Your task to perform on an android device: Open privacy settings Image 0: 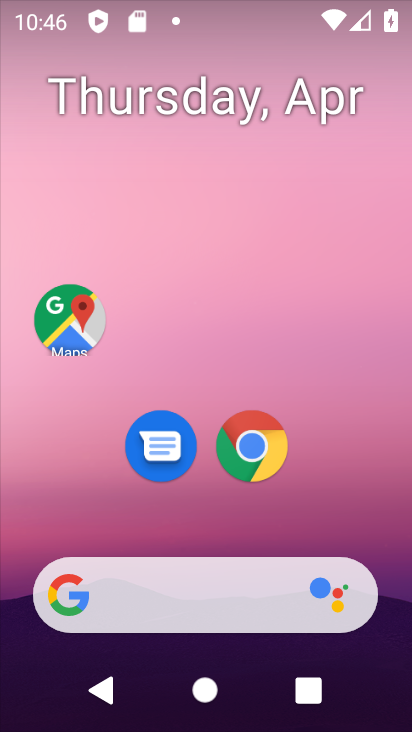
Step 0: drag from (194, 540) to (229, 278)
Your task to perform on an android device: Open privacy settings Image 1: 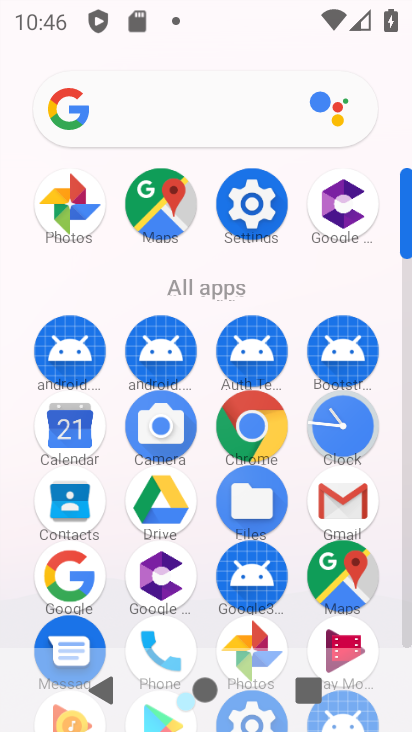
Step 1: click (231, 207)
Your task to perform on an android device: Open privacy settings Image 2: 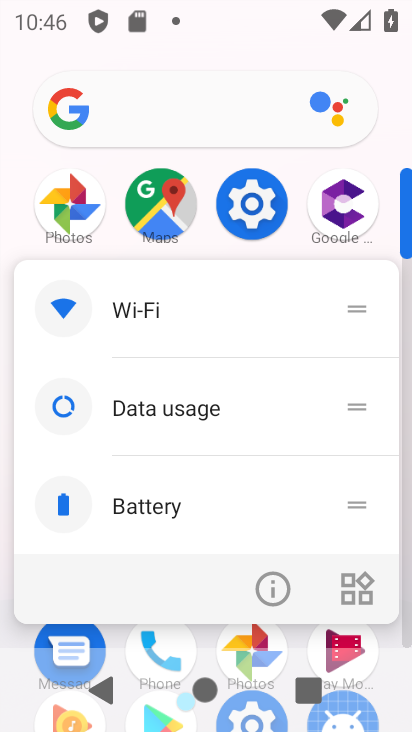
Step 2: click (291, 584)
Your task to perform on an android device: Open privacy settings Image 3: 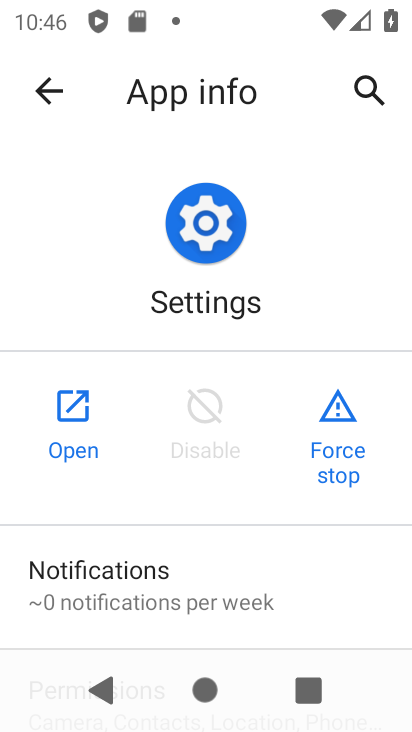
Step 3: click (55, 392)
Your task to perform on an android device: Open privacy settings Image 4: 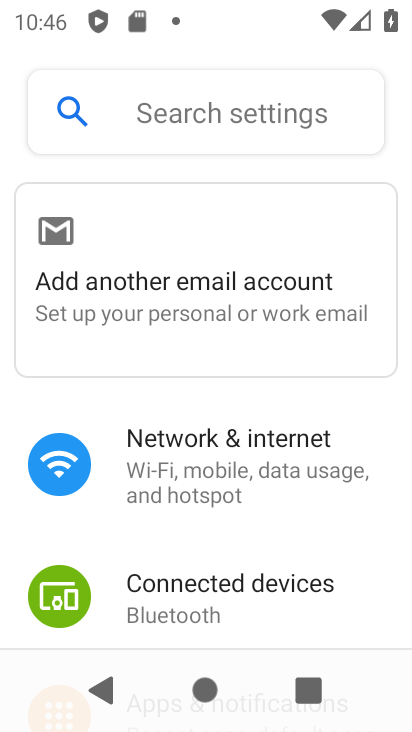
Step 4: drag from (229, 590) to (285, 65)
Your task to perform on an android device: Open privacy settings Image 5: 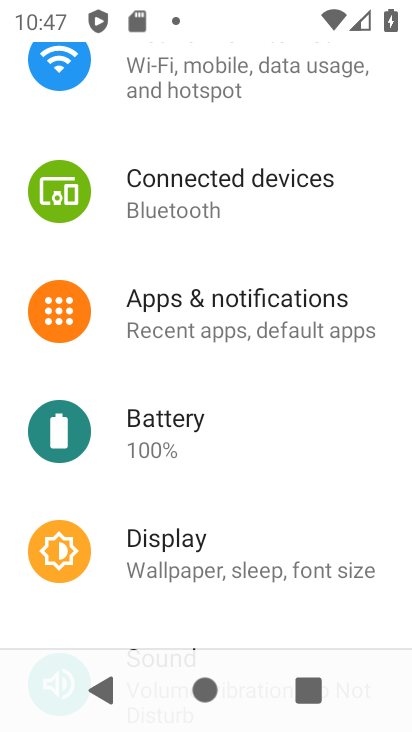
Step 5: drag from (230, 526) to (258, 104)
Your task to perform on an android device: Open privacy settings Image 6: 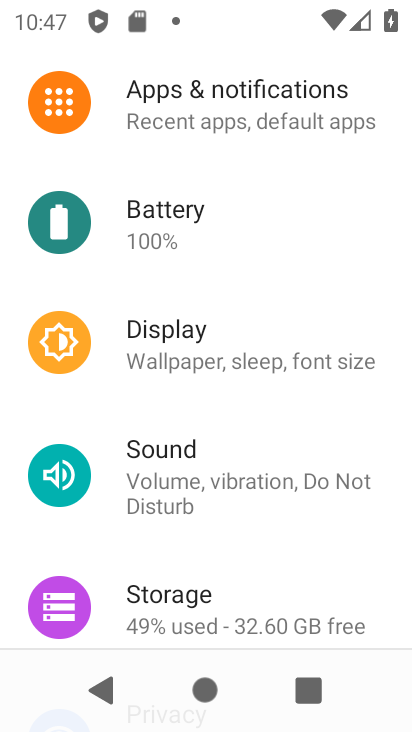
Step 6: drag from (218, 590) to (307, 150)
Your task to perform on an android device: Open privacy settings Image 7: 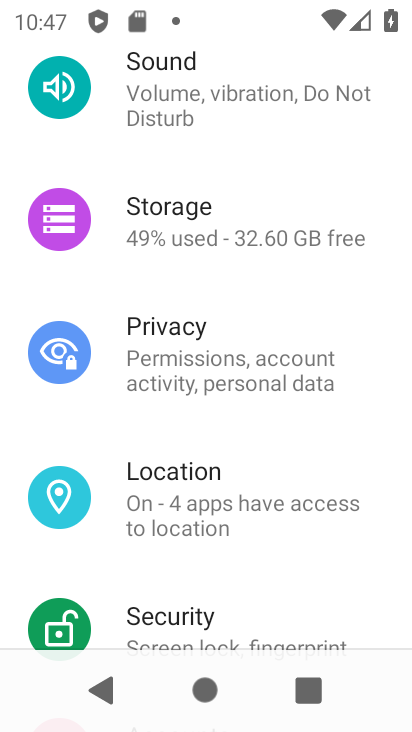
Step 7: click (145, 346)
Your task to perform on an android device: Open privacy settings Image 8: 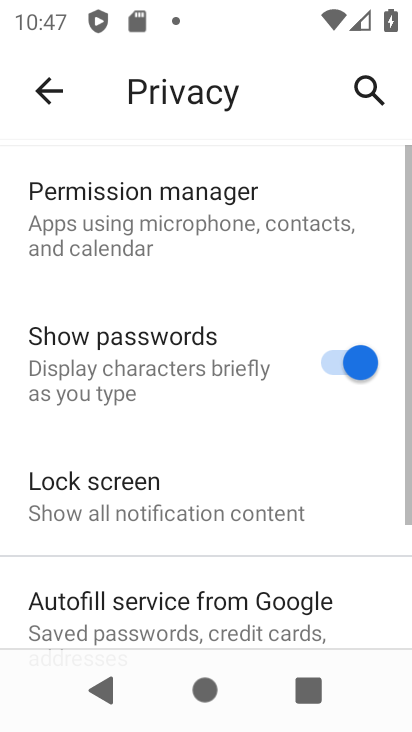
Step 8: task complete